Your task to perform on an android device: Go to network settings Image 0: 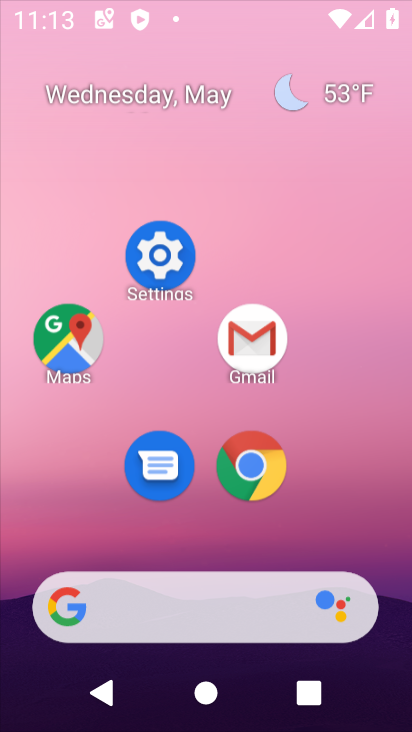
Step 0: click (226, 139)
Your task to perform on an android device: Go to network settings Image 1: 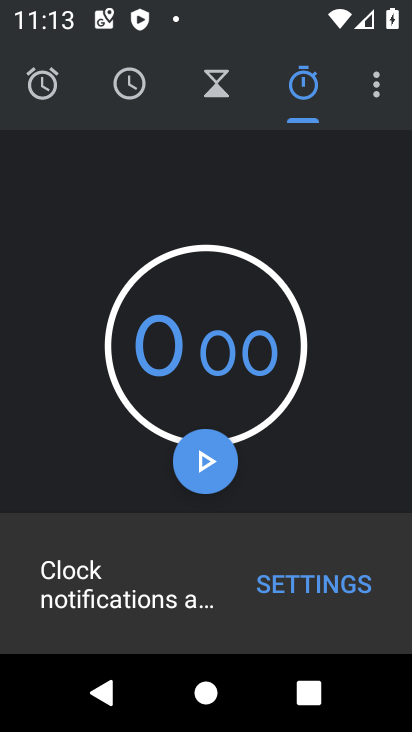
Step 1: press home button
Your task to perform on an android device: Go to network settings Image 2: 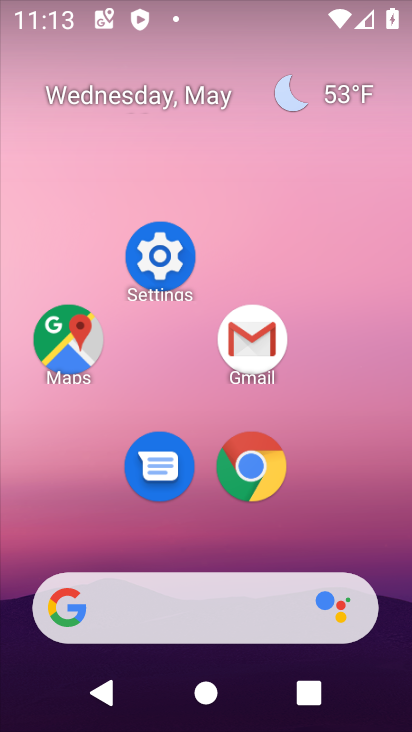
Step 2: click (155, 244)
Your task to perform on an android device: Go to network settings Image 3: 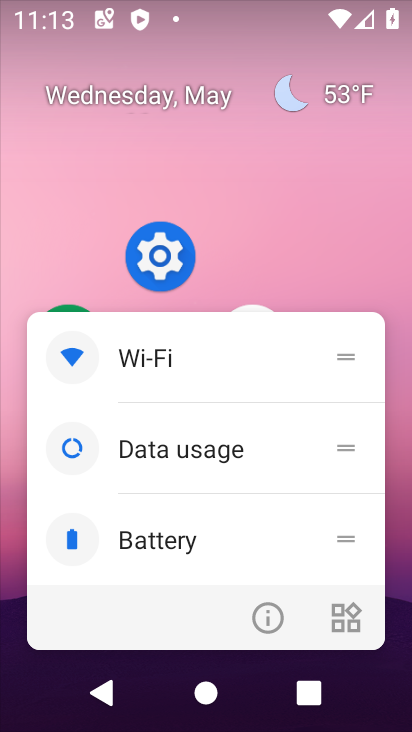
Step 3: click (262, 612)
Your task to perform on an android device: Go to network settings Image 4: 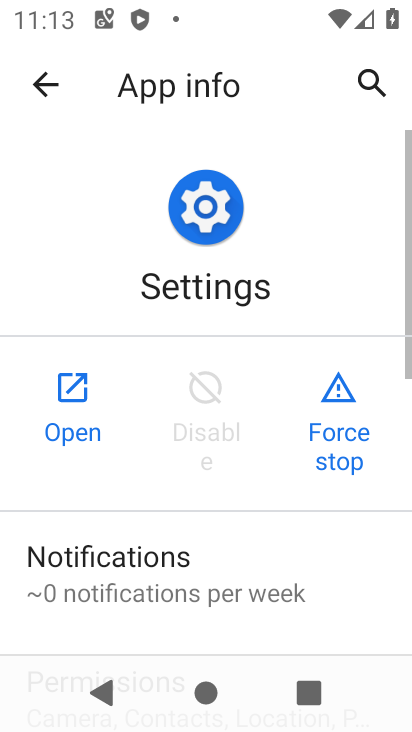
Step 4: click (85, 420)
Your task to perform on an android device: Go to network settings Image 5: 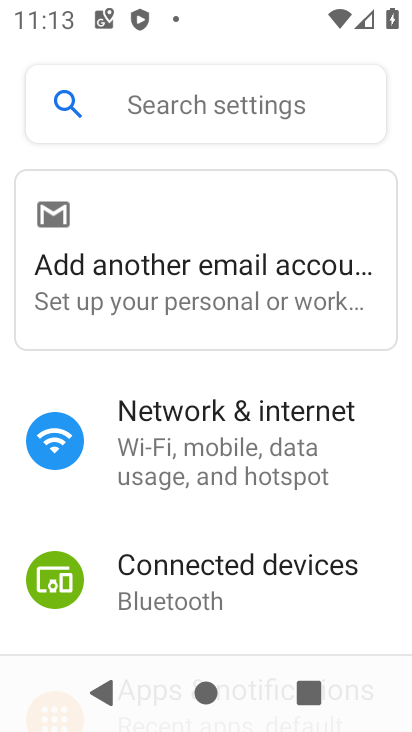
Step 5: drag from (129, 277) to (260, 2)
Your task to perform on an android device: Go to network settings Image 6: 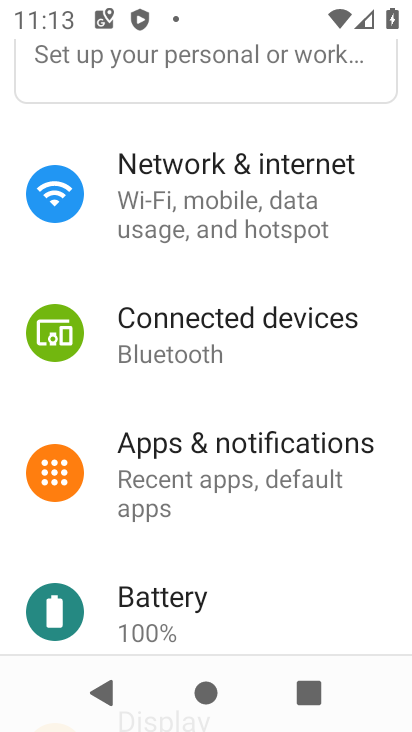
Step 6: click (191, 172)
Your task to perform on an android device: Go to network settings Image 7: 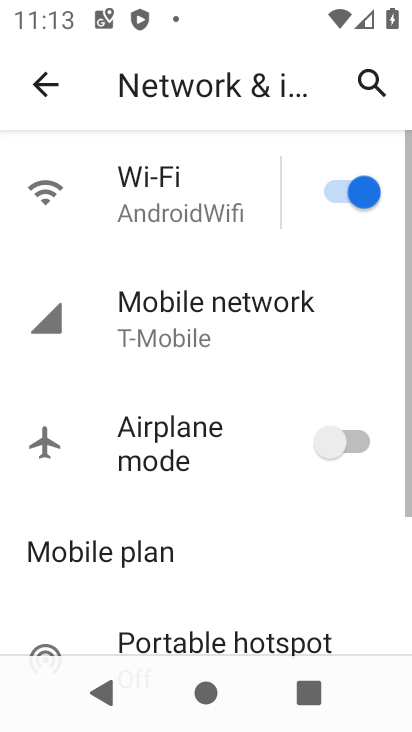
Step 7: task complete